Your task to perform on an android device: allow notifications from all sites in the chrome app Image 0: 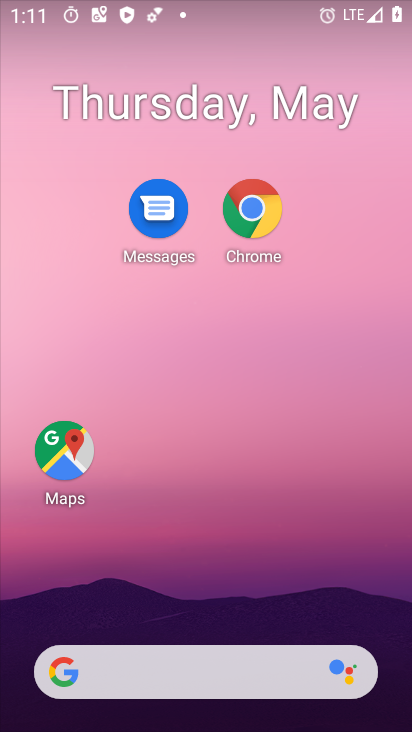
Step 0: drag from (242, 550) to (304, 109)
Your task to perform on an android device: allow notifications from all sites in the chrome app Image 1: 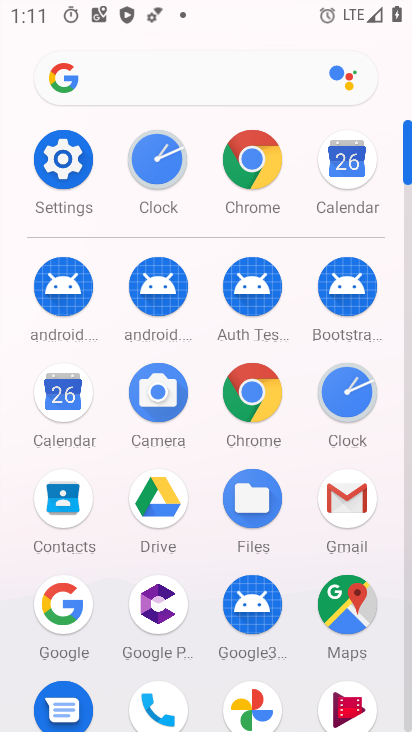
Step 1: click (252, 198)
Your task to perform on an android device: allow notifications from all sites in the chrome app Image 2: 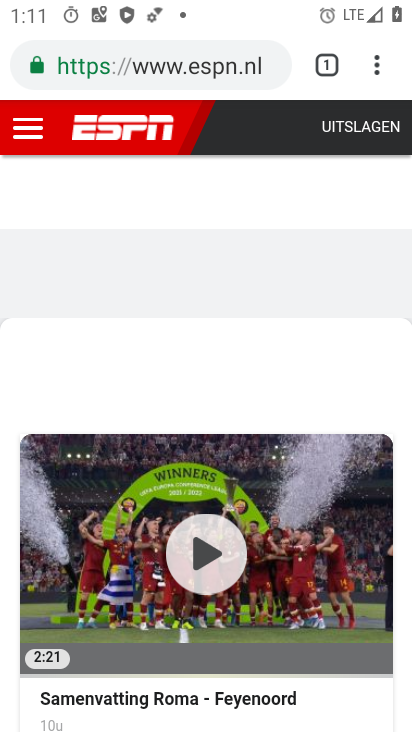
Step 2: click (370, 75)
Your task to perform on an android device: allow notifications from all sites in the chrome app Image 3: 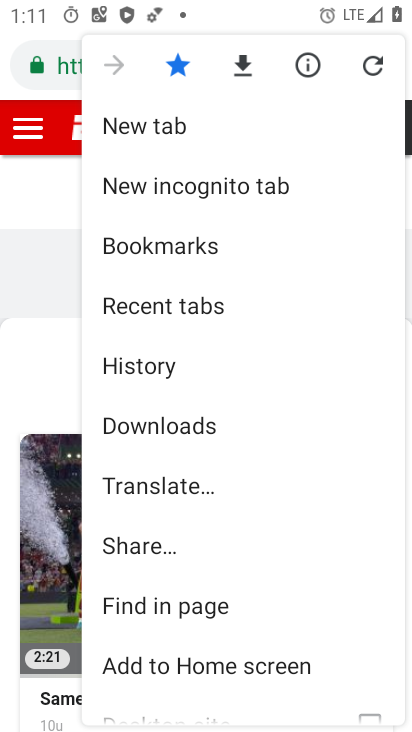
Step 3: drag from (178, 618) to (178, 218)
Your task to perform on an android device: allow notifications from all sites in the chrome app Image 4: 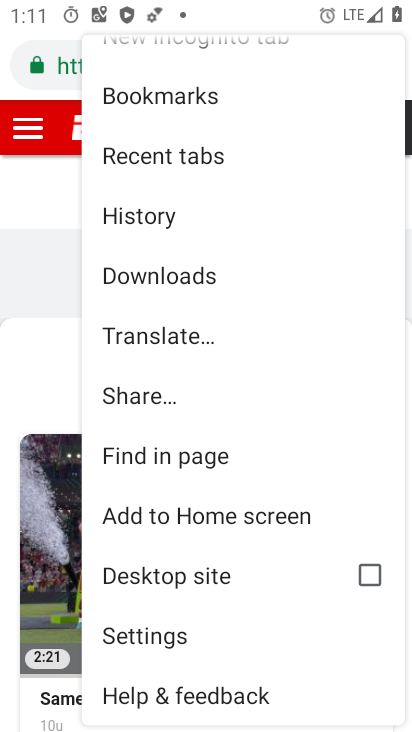
Step 4: click (154, 637)
Your task to perform on an android device: allow notifications from all sites in the chrome app Image 5: 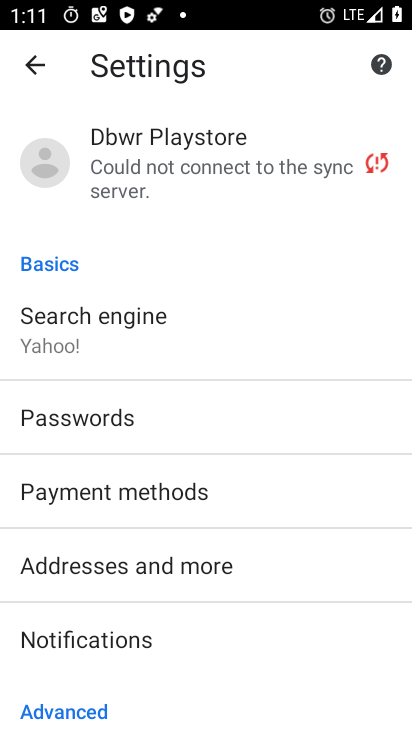
Step 5: drag from (182, 636) to (217, 480)
Your task to perform on an android device: allow notifications from all sites in the chrome app Image 6: 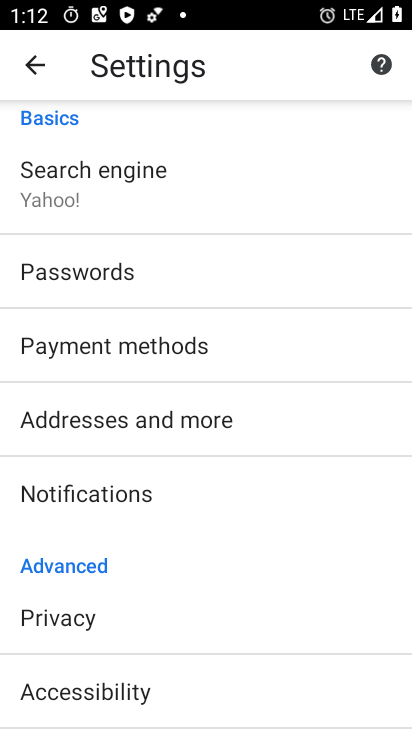
Step 6: drag from (113, 613) to (111, 379)
Your task to perform on an android device: allow notifications from all sites in the chrome app Image 7: 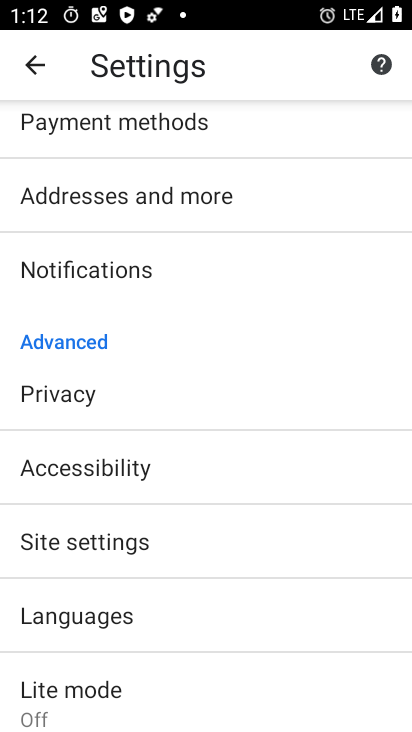
Step 7: click (67, 545)
Your task to perform on an android device: allow notifications from all sites in the chrome app Image 8: 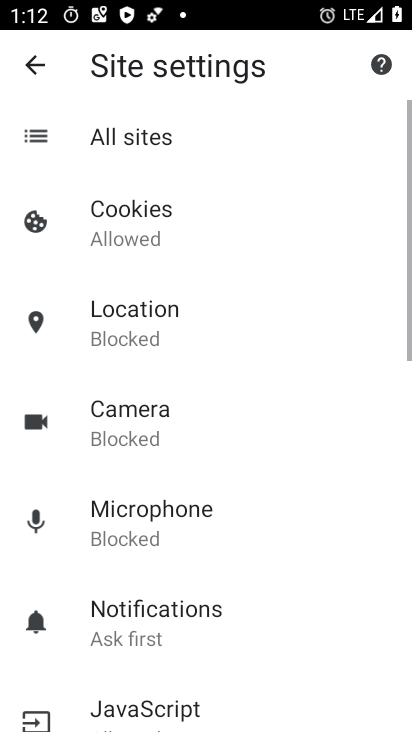
Step 8: click (148, 127)
Your task to perform on an android device: allow notifications from all sites in the chrome app Image 9: 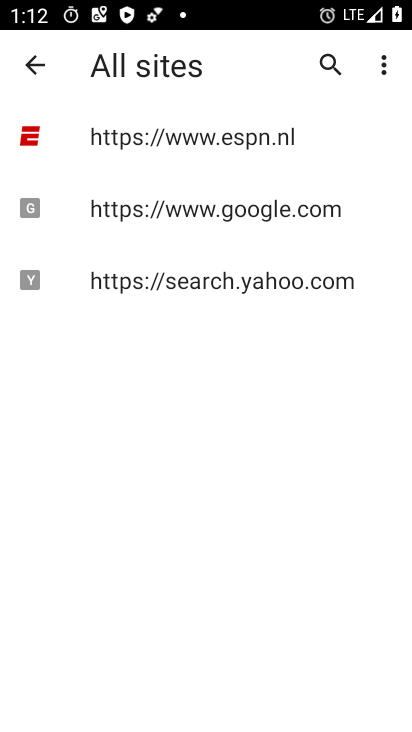
Step 9: click (170, 213)
Your task to perform on an android device: allow notifications from all sites in the chrome app Image 10: 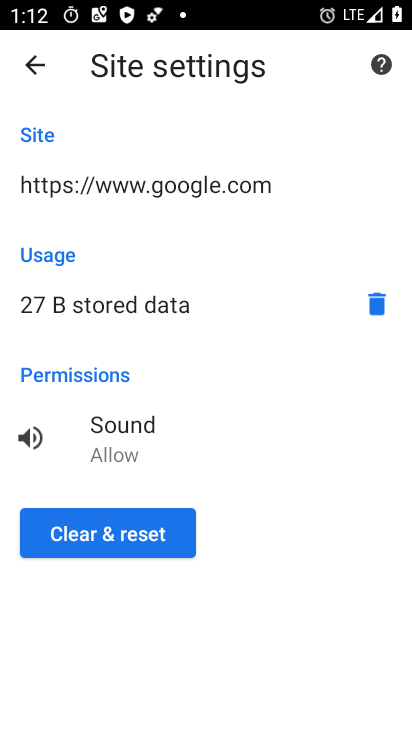
Step 10: click (24, 56)
Your task to perform on an android device: allow notifications from all sites in the chrome app Image 11: 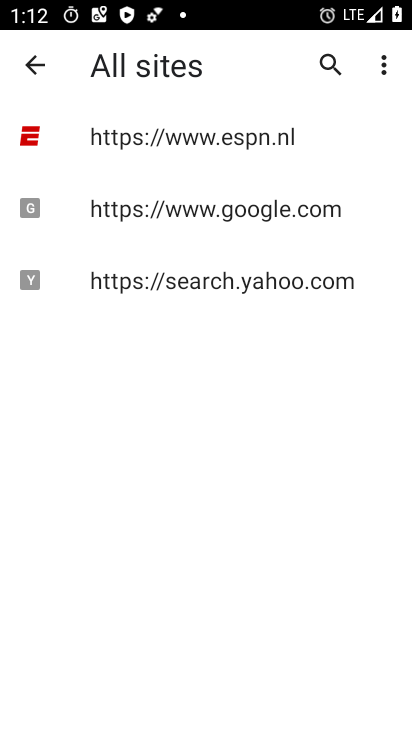
Step 11: click (137, 276)
Your task to perform on an android device: allow notifications from all sites in the chrome app Image 12: 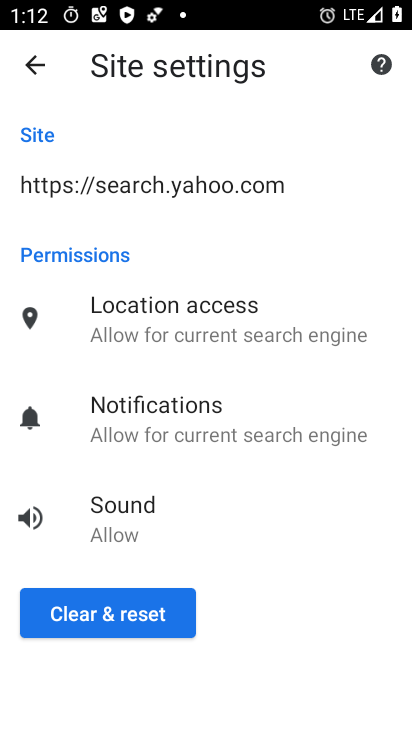
Step 12: click (143, 413)
Your task to perform on an android device: allow notifications from all sites in the chrome app Image 13: 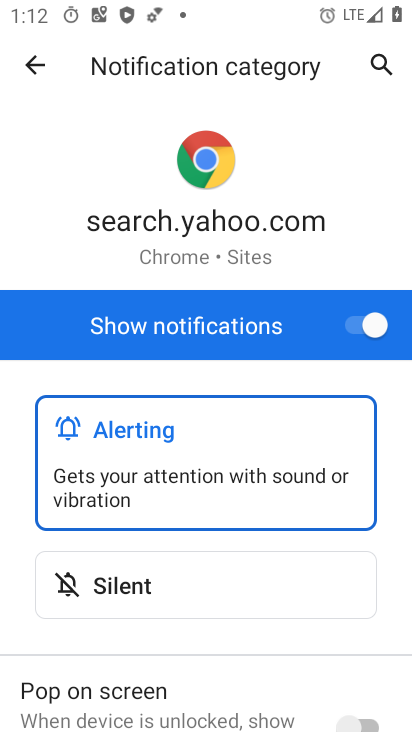
Step 13: task complete